Your task to perform on an android device: turn on data saver in the chrome app Image 0: 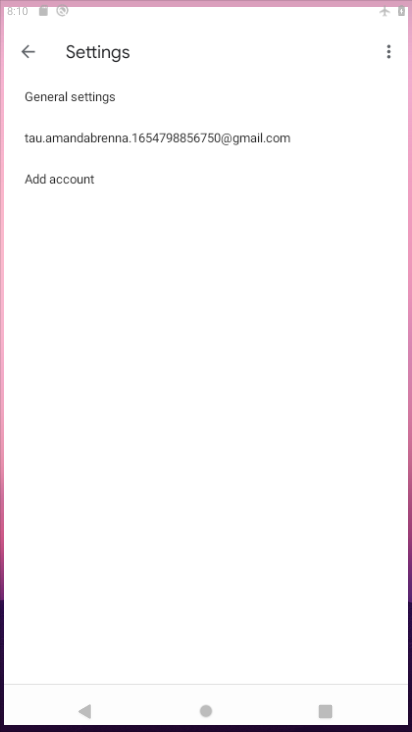
Step 0: press home button
Your task to perform on an android device: turn on data saver in the chrome app Image 1: 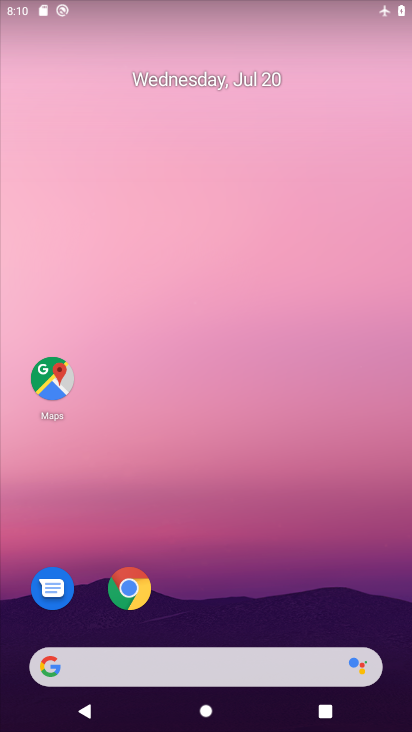
Step 1: click (133, 585)
Your task to perform on an android device: turn on data saver in the chrome app Image 2: 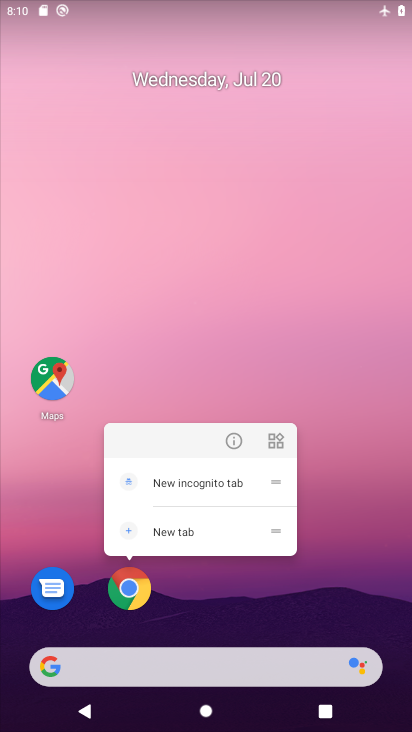
Step 2: click (120, 577)
Your task to perform on an android device: turn on data saver in the chrome app Image 3: 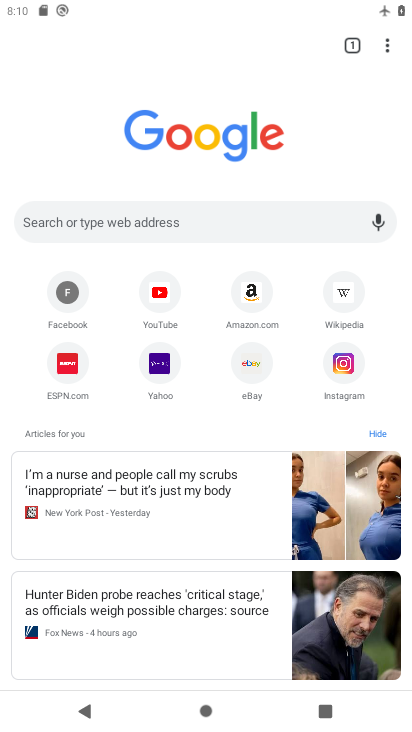
Step 3: click (386, 46)
Your task to perform on an android device: turn on data saver in the chrome app Image 4: 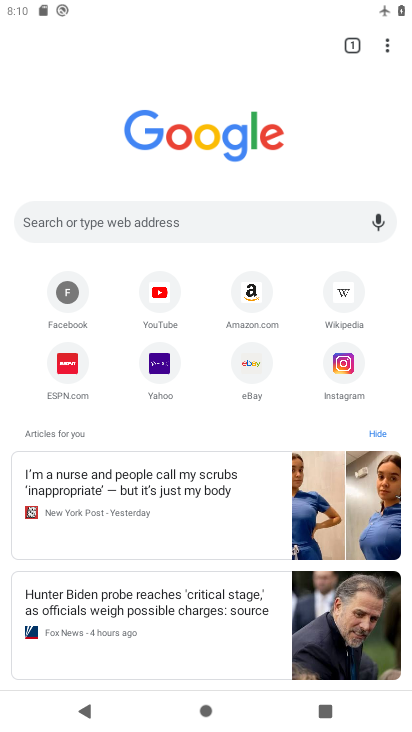
Step 4: click (386, 46)
Your task to perform on an android device: turn on data saver in the chrome app Image 5: 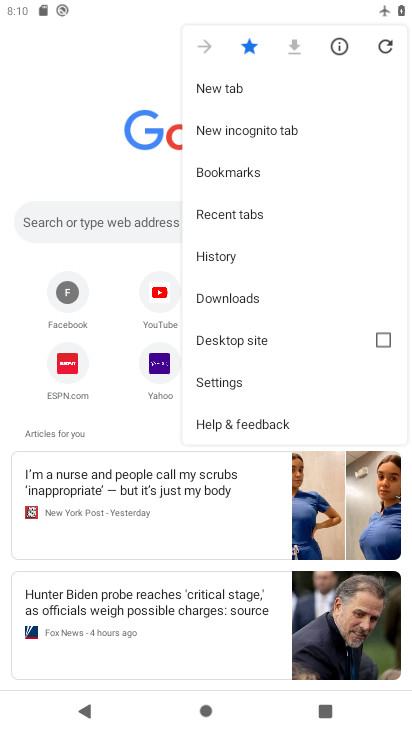
Step 5: click (222, 379)
Your task to perform on an android device: turn on data saver in the chrome app Image 6: 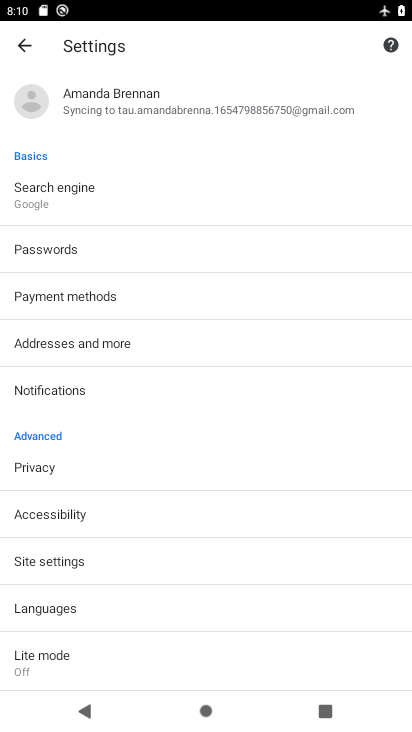
Step 6: click (92, 663)
Your task to perform on an android device: turn on data saver in the chrome app Image 7: 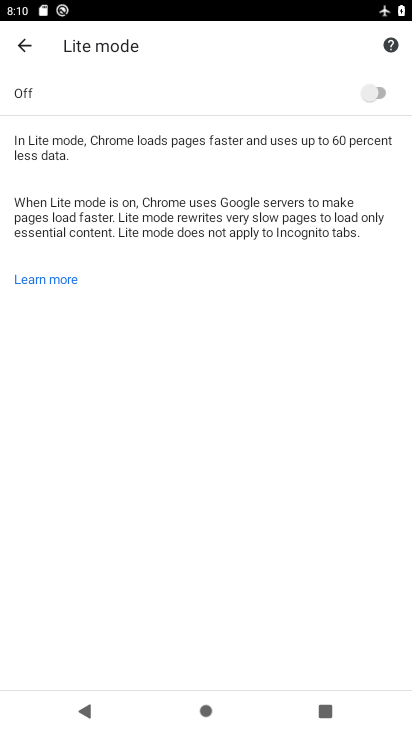
Step 7: click (375, 88)
Your task to perform on an android device: turn on data saver in the chrome app Image 8: 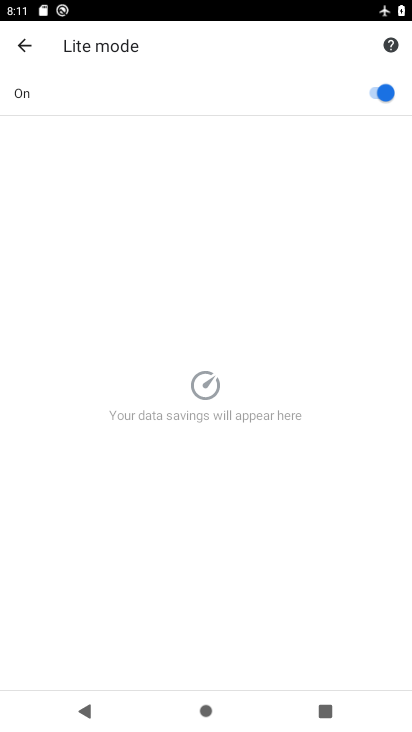
Step 8: task complete